Your task to perform on an android device: What's the weather going to be tomorrow? Image 0: 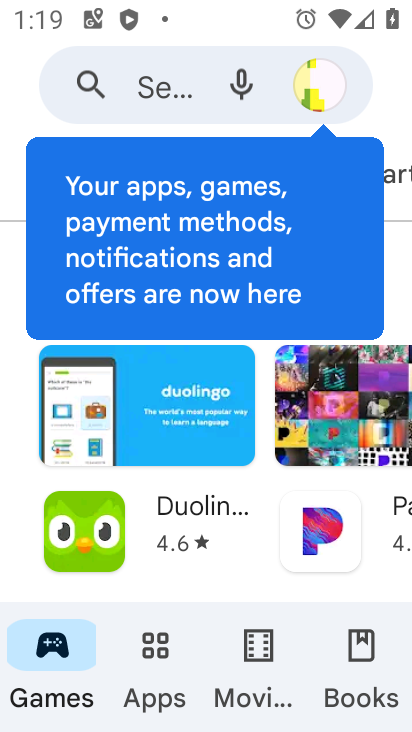
Step 0: press home button
Your task to perform on an android device: What's the weather going to be tomorrow? Image 1: 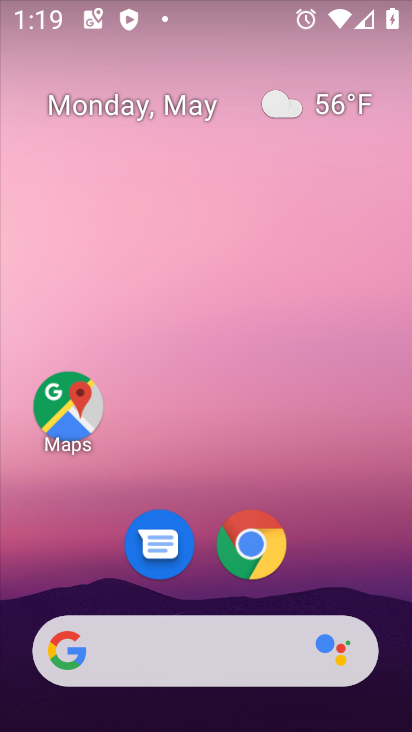
Step 1: click (314, 100)
Your task to perform on an android device: What's the weather going to be tomorrow? Image 2: 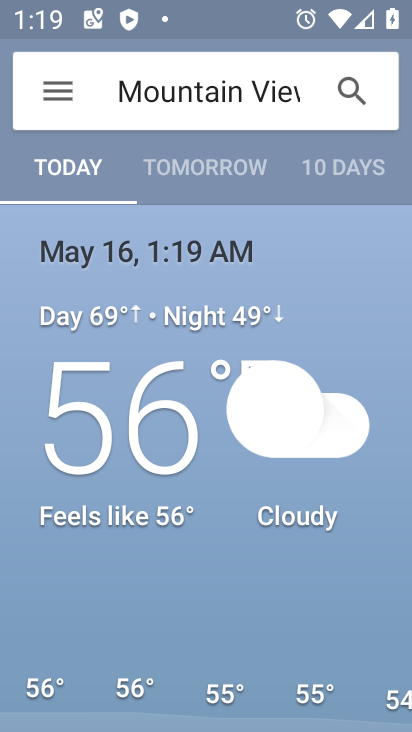
Step 2: click (188, 173)
Your task to perform on an android device: What's the weather going to be tomorrow? Image 3: 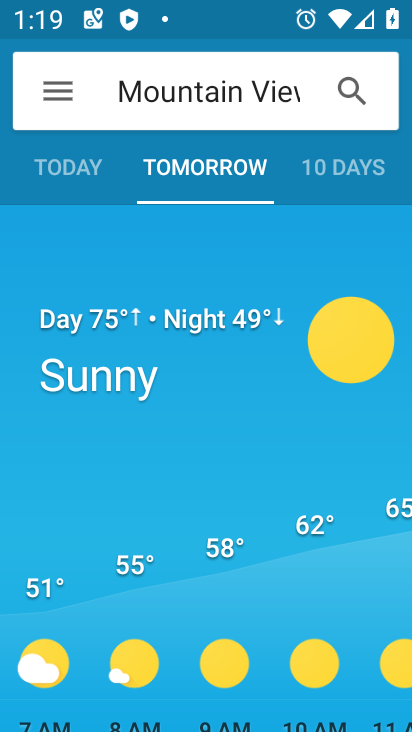
Step 3: task complete